Your task to perform on an android device: change the clock display to show seconds Image 0: 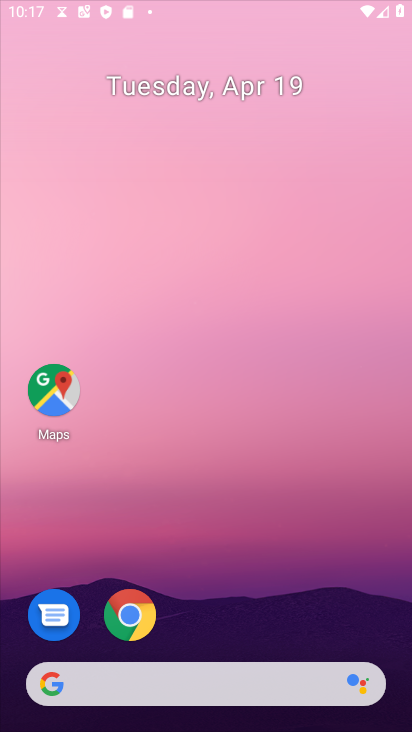
Step 0: click (241, 140)
Your task to perform on an android device: change the clock display to show seconds Image 1: 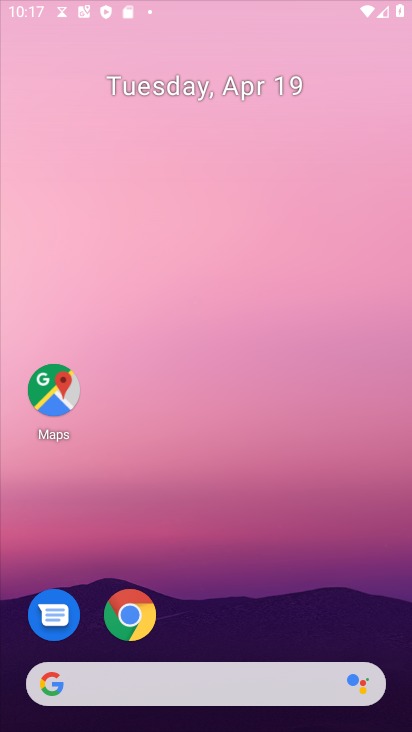
Step 1: drag from (208, 626) to (255, 82)
Your task to perform on an android device: change the clock display to show seconds Image 2: 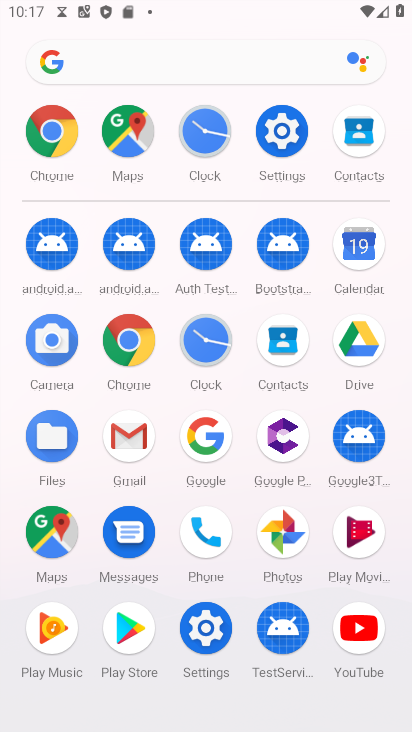
Step 2: click (258, 85)
Your task to perform on an android device: change the clock display to show seconds Image 3: 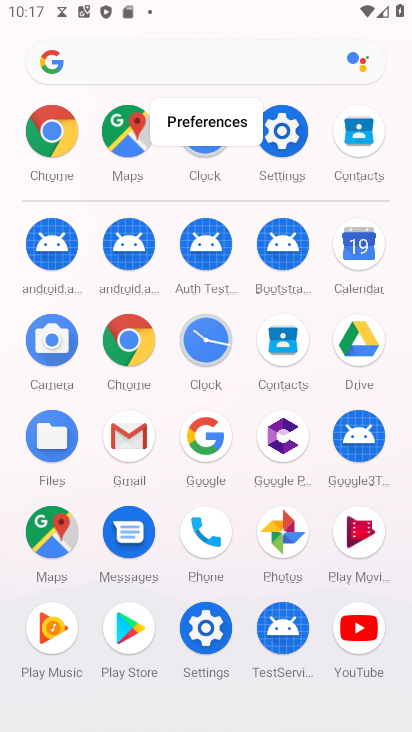
Step 3: click (209, 643)
Your task to perform on an android device: change the clock display to show seconds Image 4: 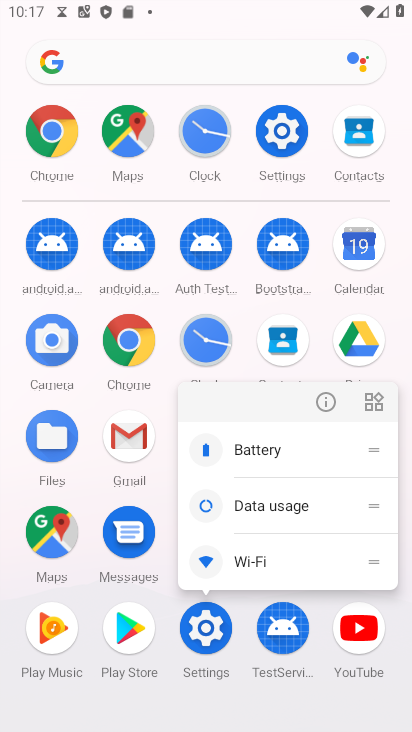
Step 4: click (197, 330)
Your task to perform on an android device: change the clock display to show seconds Image 5: 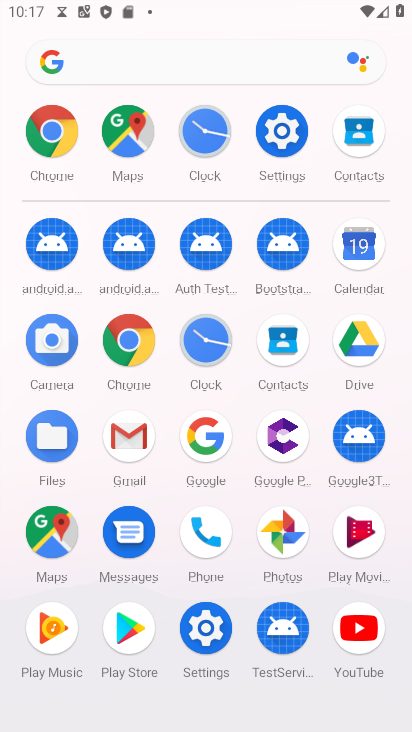
Step 5: click (203, 333)
Your task to perform on an android device: change the clock display to show seconds Image 6: 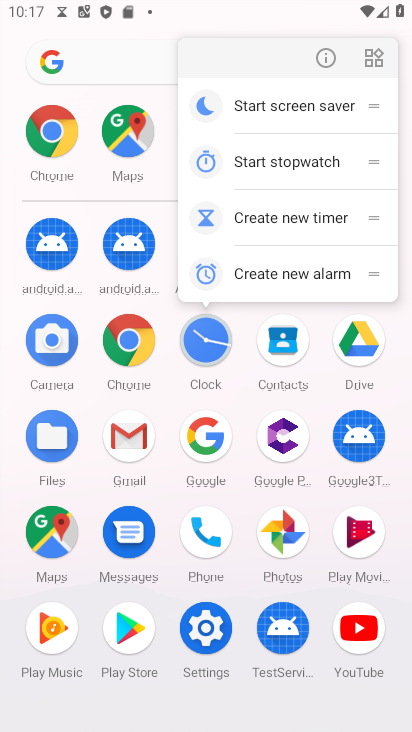
Step 6: click (329, 51)
Your task to perform on an android device: change the clock display to show seconds Image 7: 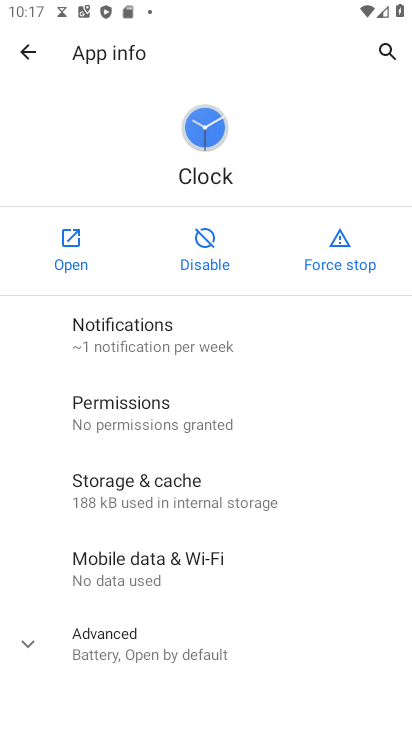
Step 7: click (64, 240)
Your task to perform on an android device: change the clock display to show seconds Image 8: 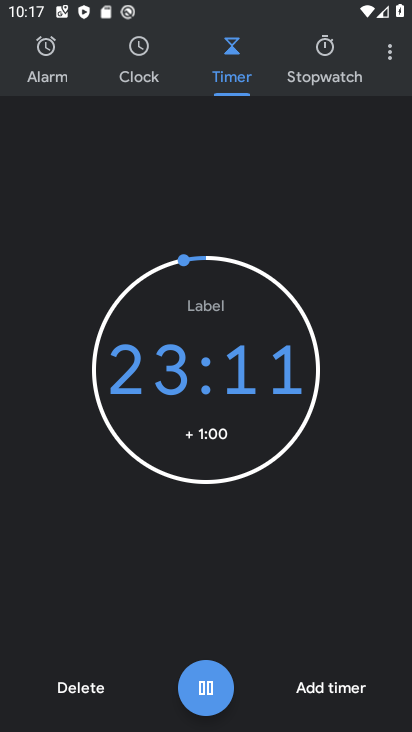
Step 8: click (393, 54)
Your task to perform on an android device: change the clock display to show seconds Image 9: 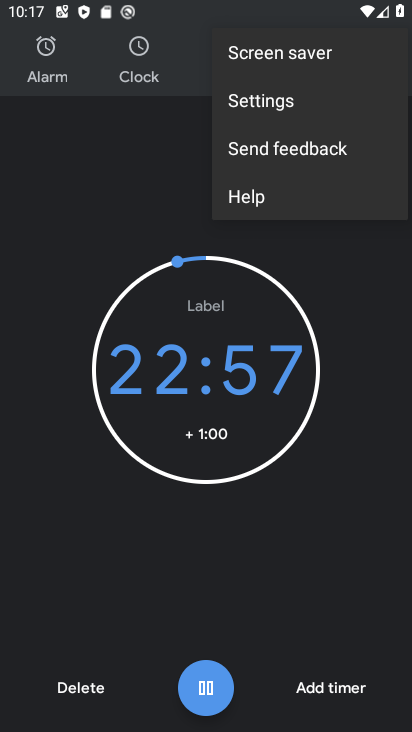
Step 9: click (298, 112)
Your task to perform on an android device: change the clock display to show seconds Image 10: 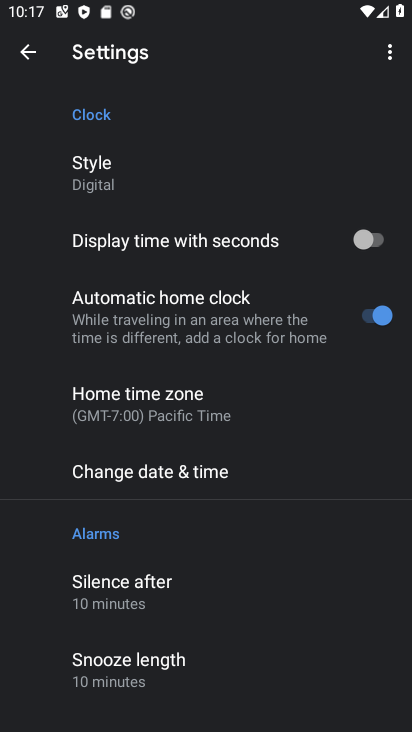
Step 10: click (361, 235)
Your task to perform on an android device: change the clock display to show seconds Image 11: 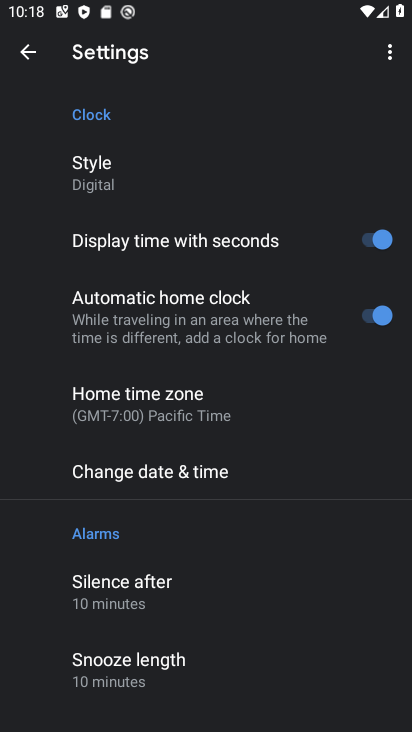
Step 11: task complete